Your task to perform on an android device: When is my next meeting? Image 0: 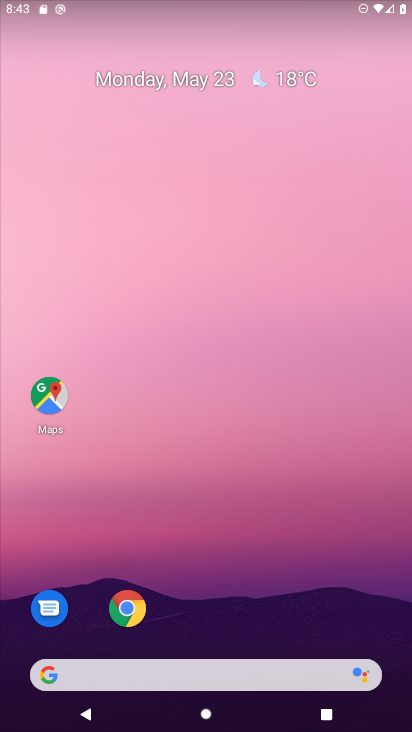
Step 0: drag from (228, 726) to (226, 14)
Your task to perform on an android device: When is my next meeting? Image 1: 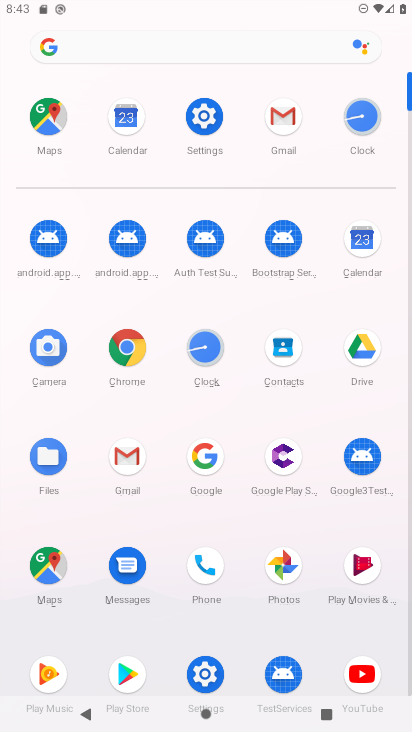
Step 1: click (364, 236)
Your task to perform on an android device: When is my next meeting? Image 2: 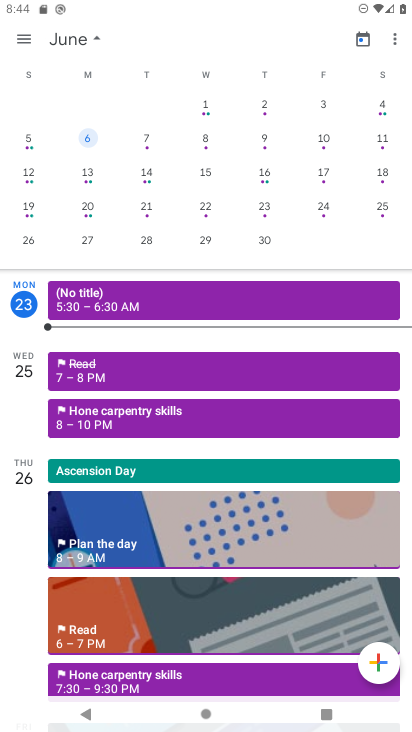
Step 2: drag from (78, 161) to (354, 159)
Your task to perform on an android device: When is my next meeting? Image 3: 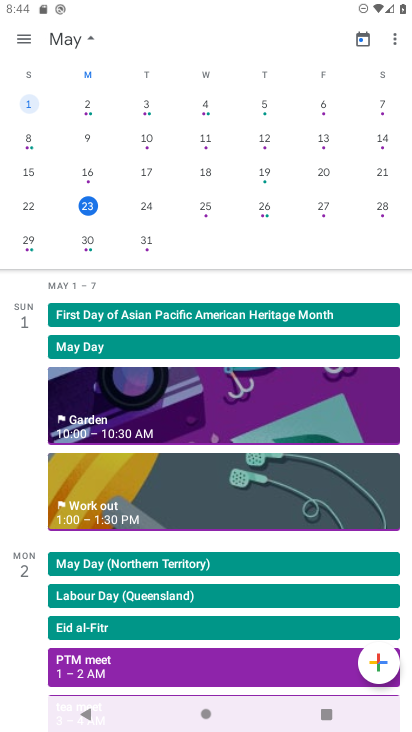
Step 3: click (149, 200)
Your task to perform on an android device: When is my next meeting? Image 4: 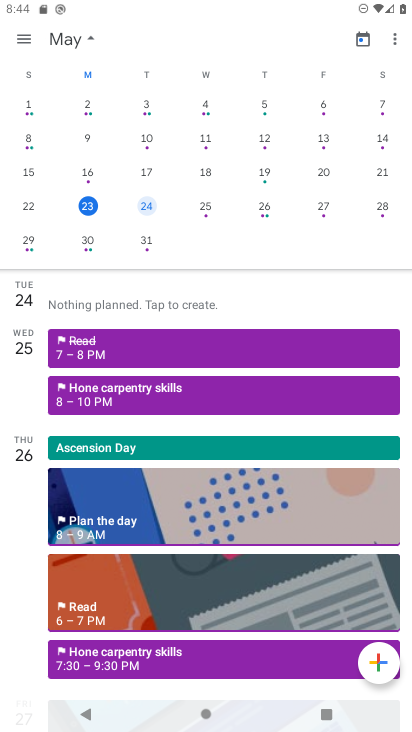
Step 4: click (88, 35)
Your task to perform on an android device: When is my next meeting? Image 5: 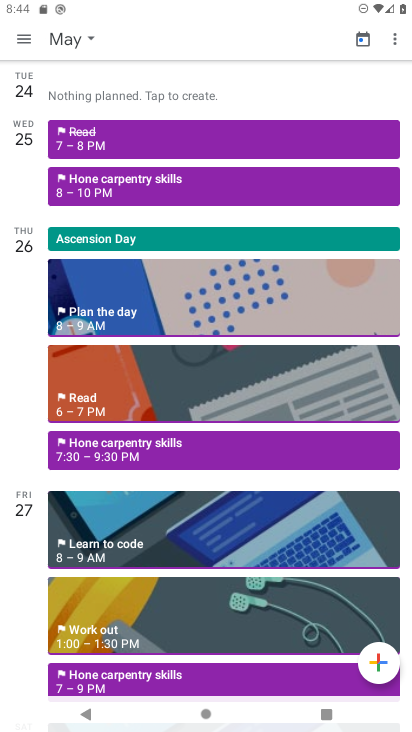
Step 5: task complete